Your task to perform on an android device: What's on my calendar today? Image 0: 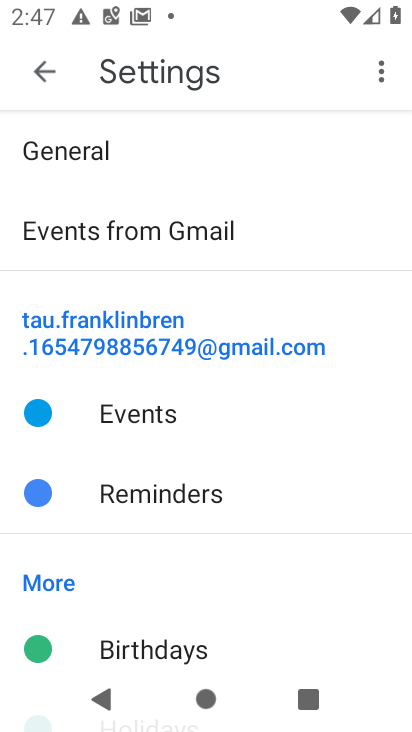
Step 0: press home button
Your task to perform on an android device: What's on my calendar today? Image 1: 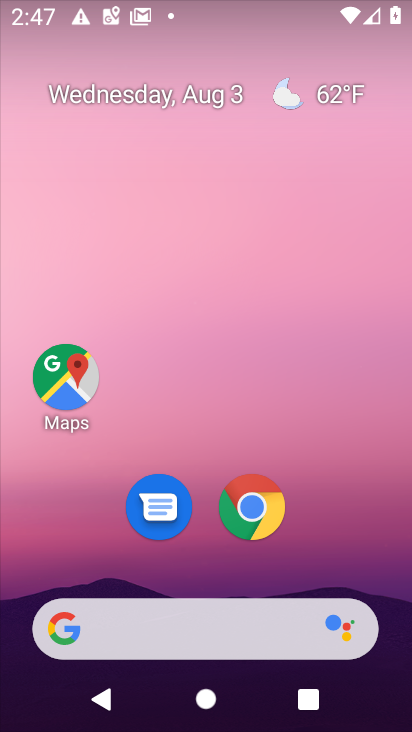
Step 1: drag from (323, 559) to (82, 50)
Your task to perform on an android device: What's on my calendar today? Image 2: 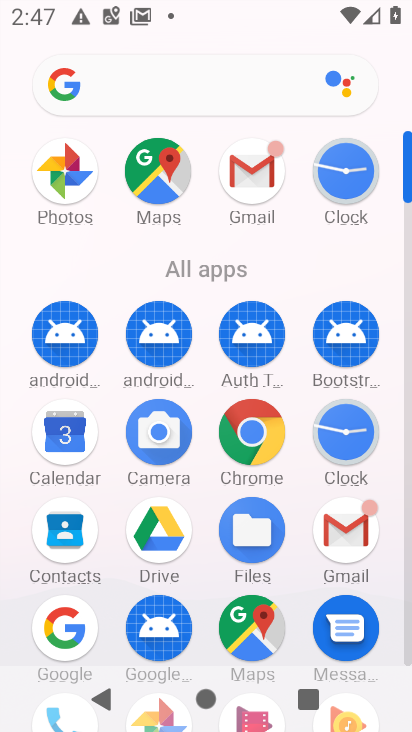
Step 2: click (68, 445)
Your task to perform on an android device: What's on my calendar today? Image 3: 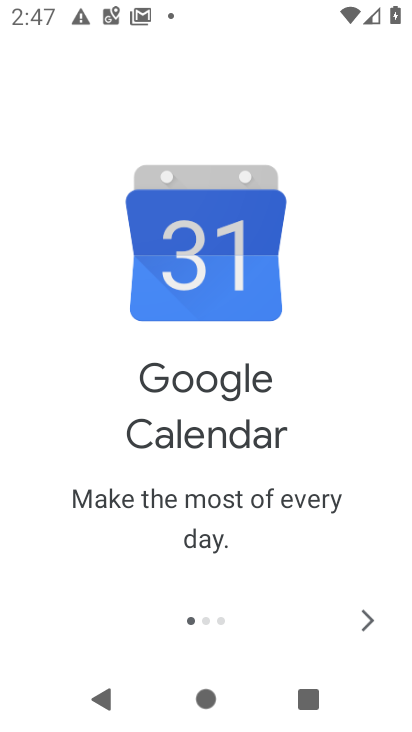
Step 3: click (378, 622)
Your task to perform on an android device: What's on my calendar today? Image 4: 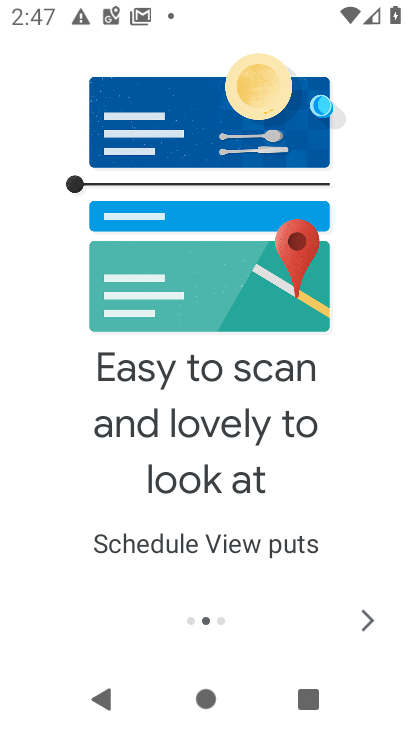
Step 4: click (378, 622)
Your task to perform on an android device: What's on my calendar today? Image 5: 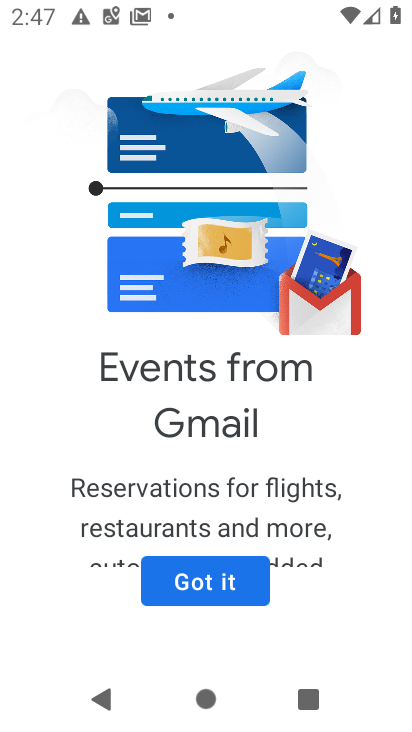
Step 5: click (378, 622)
Your task to perform on an android device: What's on my calendar today? Image 6: 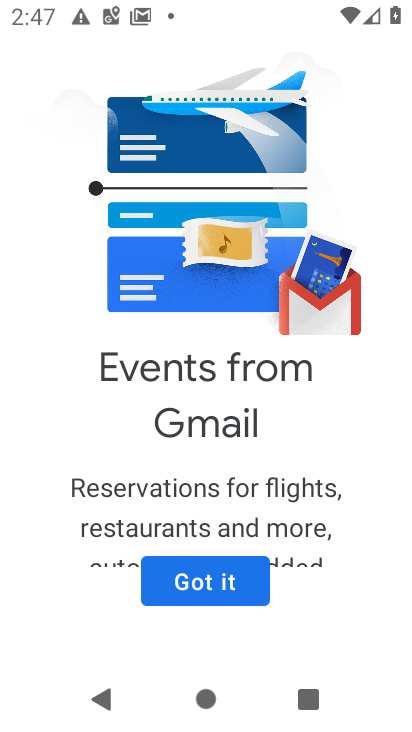
Step 6: click (221, 580)
Your task to perform on an android device: What's on my calendar today? Image 7: 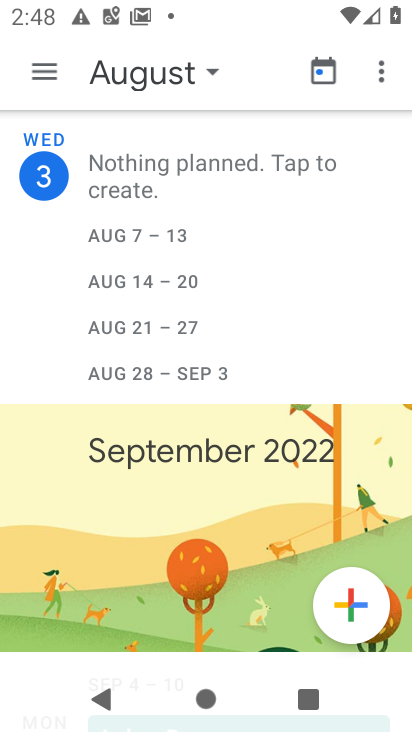
Step 7: click (41, 76)
Your task to perform on an android device: What's on my calendar today? Image 8: 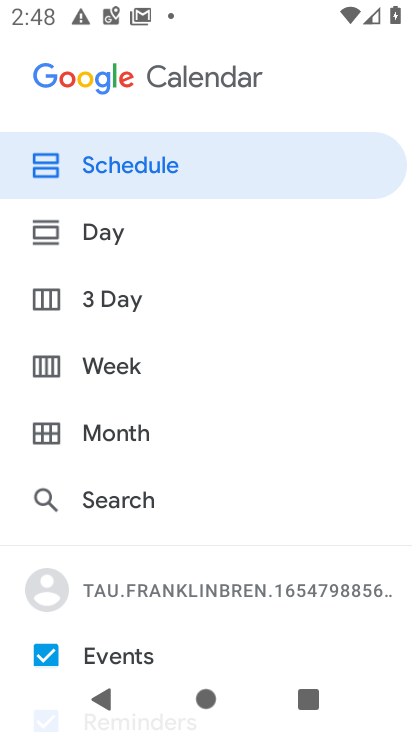
Step 8: task complete